Your task to perform on an android device: turn pop-ups on in chrome Image 0: 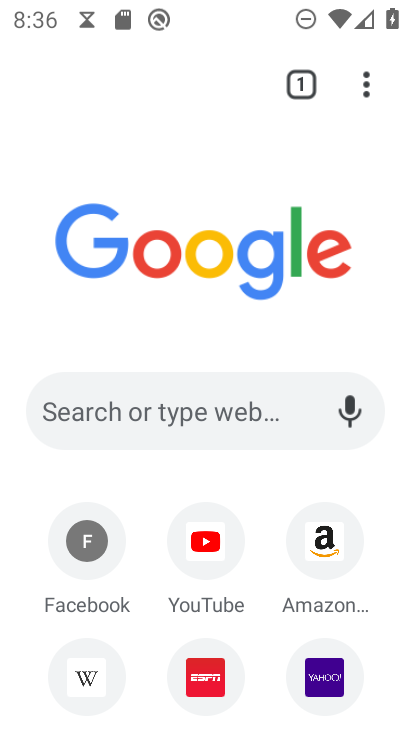
Step 0: press home button
Your task to perform on an android device: turn pop-ups on in chrome Image 1: 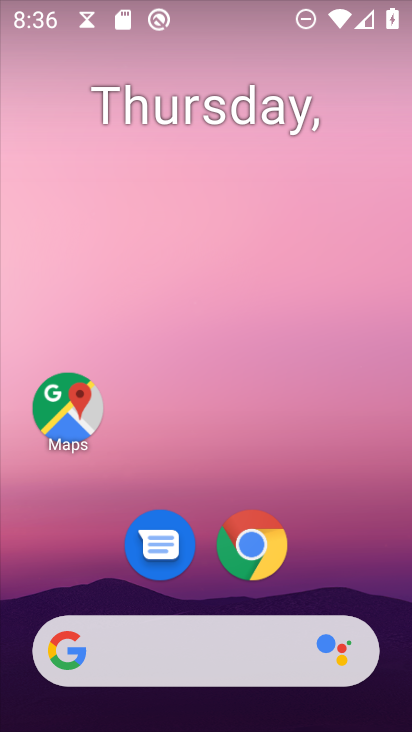
Step 1: click (251, 546)
Your task to perform on an android device: turn pop-ups on in chrome Image 2: 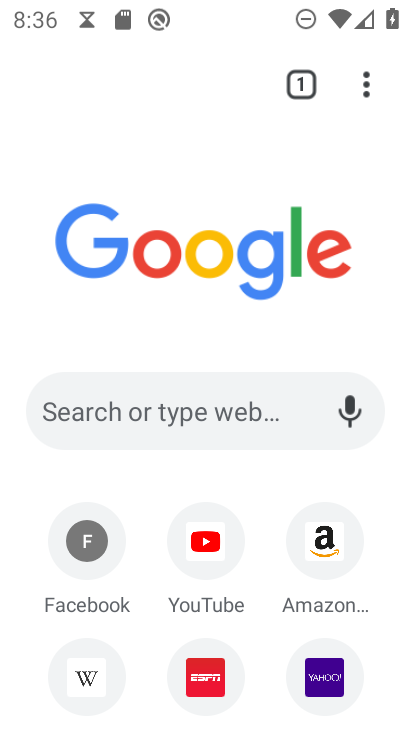
Step 2: click (367, 86)
Your task to perform on an android device: turn pop-ups on in chrome Image 3: 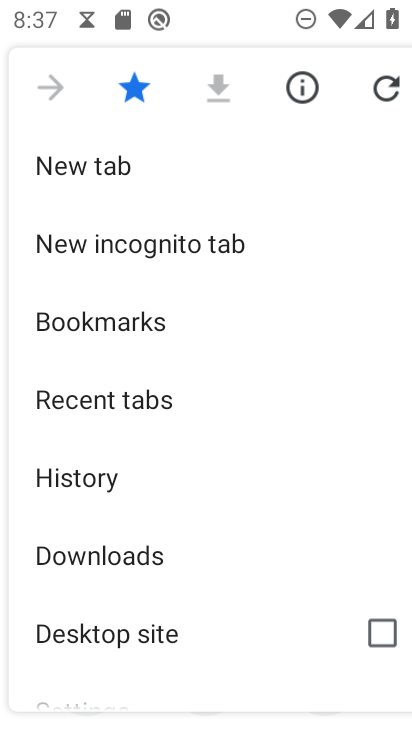
Step 3: drag from (130, 507) to (198, 404)
Your task to perform on an android device: turn pop-ups on in chrome Image 4: 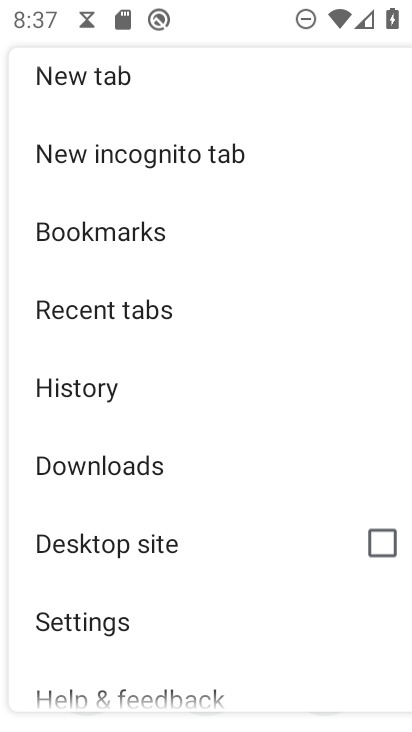
Step 4: drag from (122, 494) to (197, 403)
Your task to perform on an android device: turn pop-ups on in chrome Image 5: 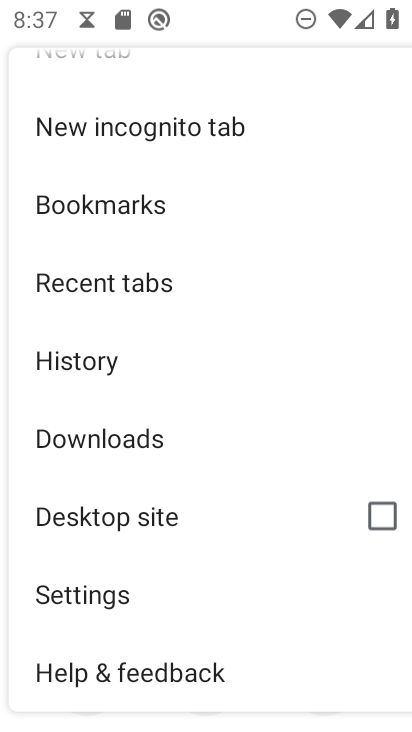
Step 5: drag from (110, 495) to (206, 381)
Your task to perform on an android device: turn pop-ups on in chrome Image 6: 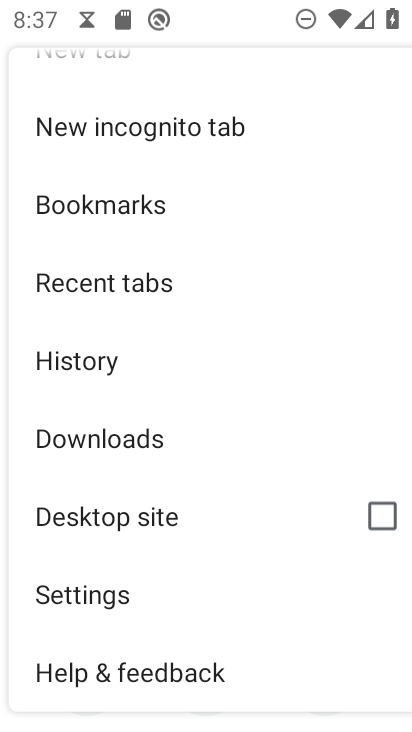
Step 6: click (101, 596)
Your task to perform on an android device: turn pop-ups on in chrome Image 7: 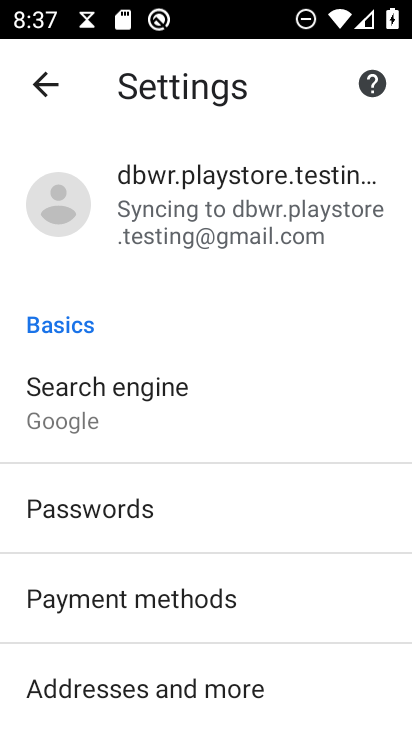
Step 7: drag from (126, 568) to (168, 484)
Your task to perform on an android device: turn pop-ups on in chrome Image 8: 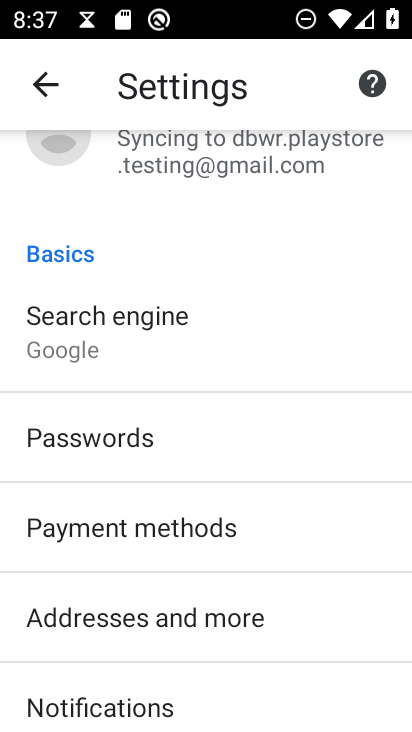
Step 8: drag from (105, 553) to (169, 464)
Your task to perform on an android device: turn pop-ups on in chrome Image 9: 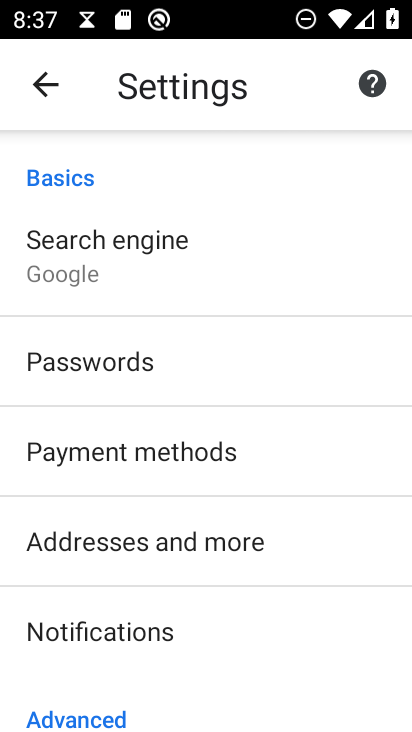
Step 9: drag from (120, 509) to (192, 424)
Your task to perform on an android device: turn pop-ups on in chrome Image 10: 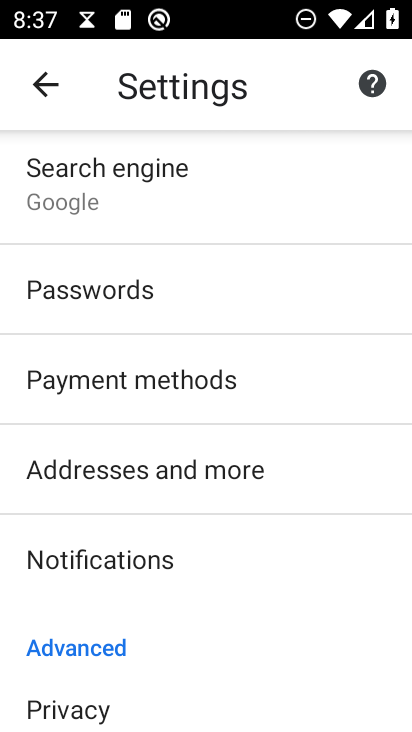
Step 10: drag from (105, 582) to (186, 477)
Your task to perform on an android device: turn pop-ups on in chrome Image 11: 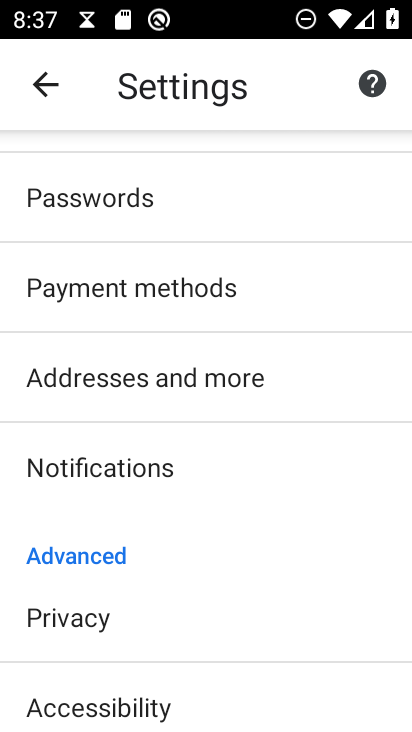
Step 11: drag from (97, 580) to (180, 474)
Your task to perform on an android device: turn pop-ups on in chrome Image 12: 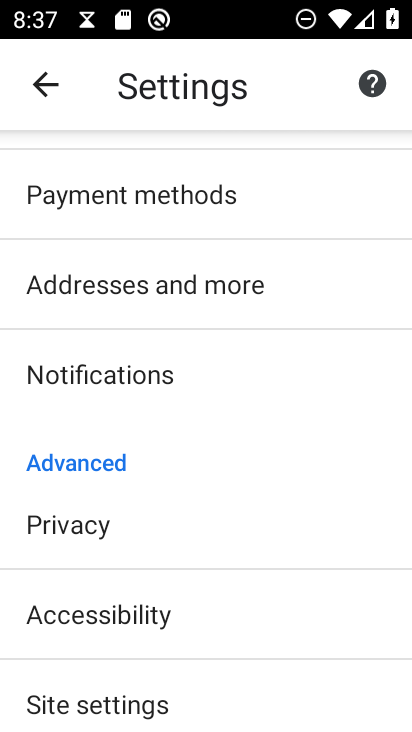
Step 12: drag from (79, 590) to (181, 475)
Your task to perform on an android device: turn pop-ups on in chrome Image 13: 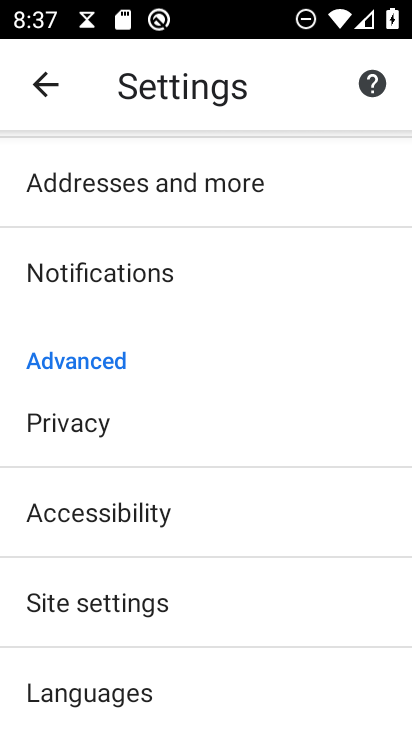
Step 13: drag from (84, 580) to (185, 472)
Your task to perform on an android device: turn pop-ups on in chrome Image 14: 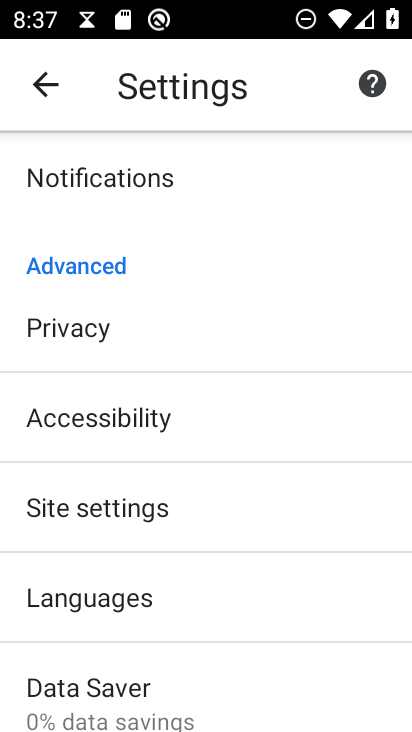
Step 14: click (114, 512)
Your task to perform on an android device: turn pop-ups on in chrome Image 15: 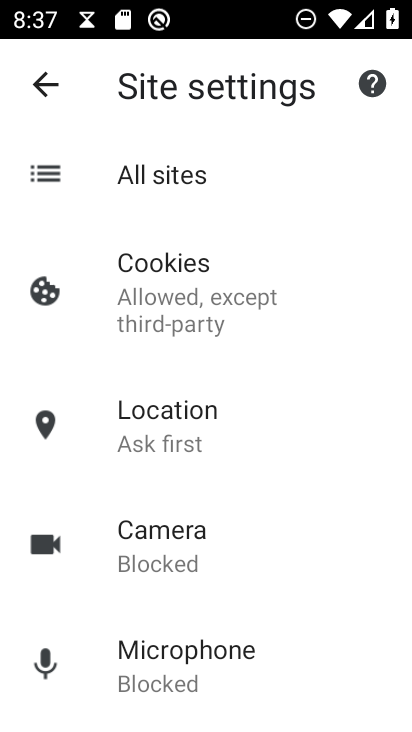
Step 15: drag from (154, 603) to (175, 509)
Your task to perform on an android device: turn pop-ups on in chrome Image 16: 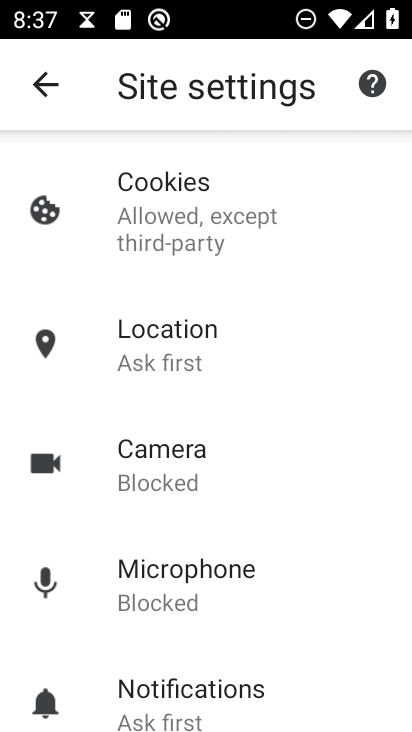
Step 16: drag from (163, 625) to (209, 523)
Your task to perform on an android device: turn pop-ups on in chrome Image 17: 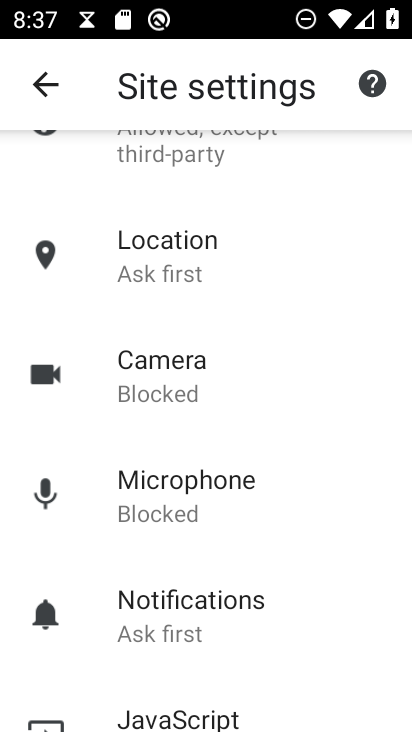
Step 17: drag from (159, 659) to (219, 561)
Your task to perform on an android device: turn pop-ups on in chrome Image 18: 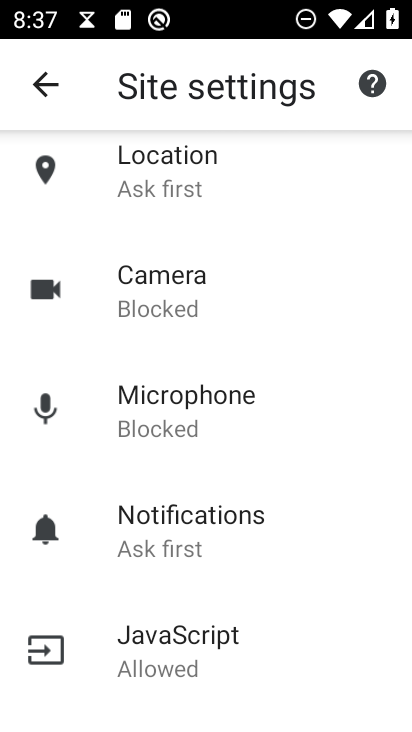
Step 18: drag from (178, 600) to (261, 497)
Your task to perform on an android device: turn pop-ups on in chrome Image 19: 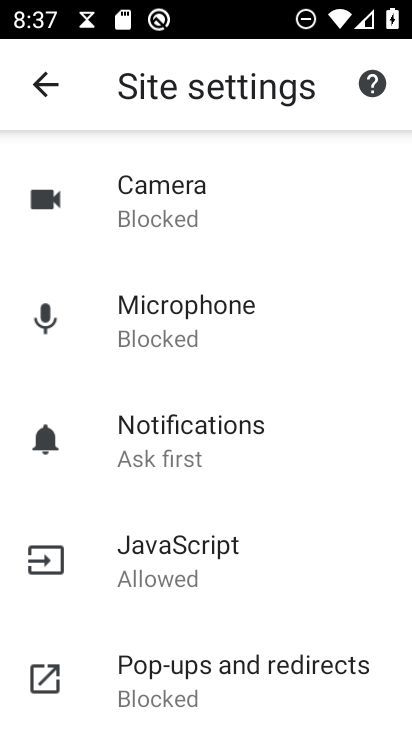
Step 19: drag from (139, 631) to (265, 498)
Your task to perform on an android device: turn pop-ups on in chrome Image 20: 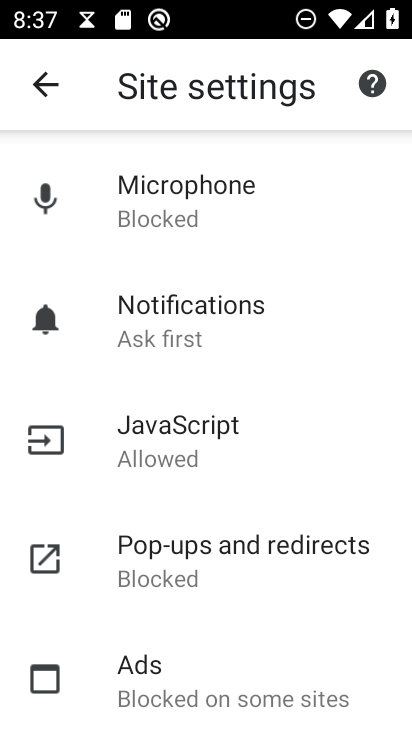
Step 20: click (215, 558)
Your task to perform on an android device: turn pop-ups on in chrome Image 21: 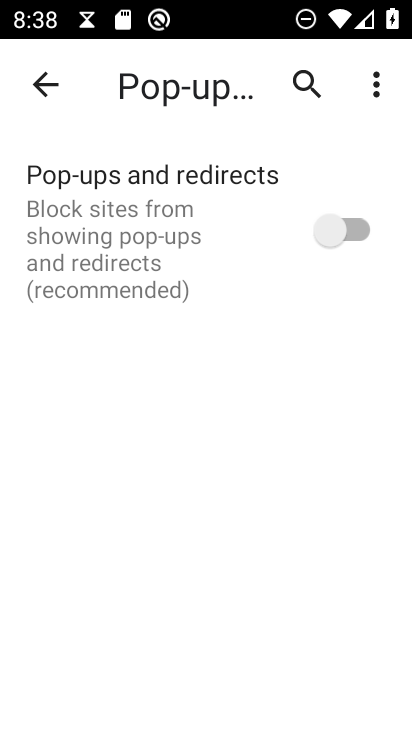
Step 21: click (362, 234)
Your task to perform on an android device: turn pop-ups on in chrome Image 22: 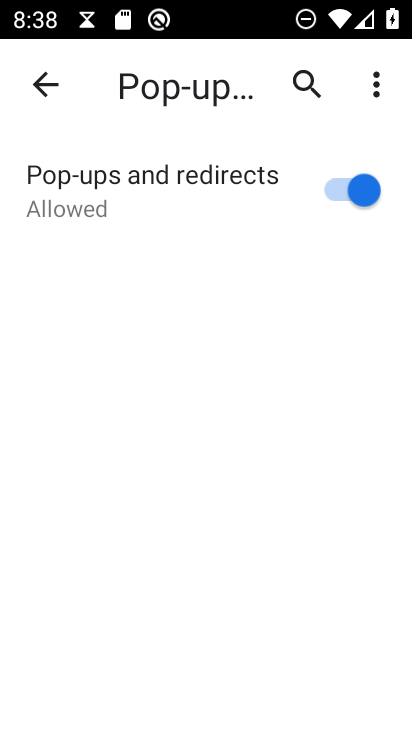
Step 22: task complete